Your task to perform on an android device: Open calendar and show me the third week of next month Image 0: 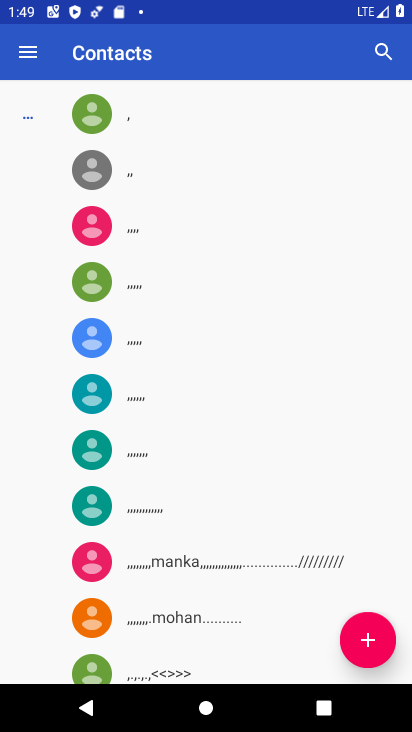
Step 0: press home button
Your task to perform on an android device: Open calendar and show me the third week of next month Image 1: 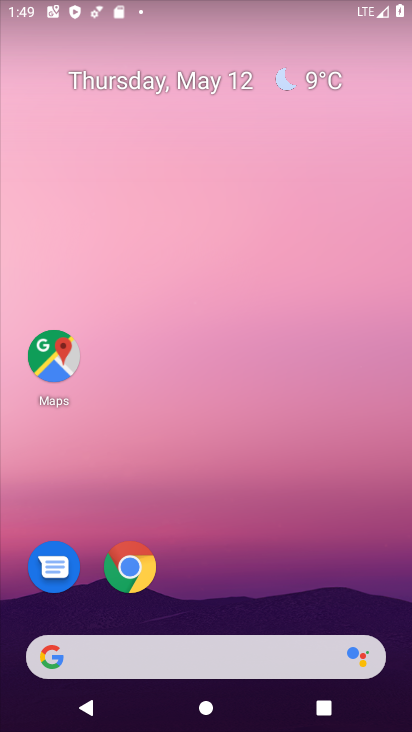
Step 1: drag from (200, 606) to (247, 76)
Your task to perform on an android device: Open calendar and show me the third week of next month Image 2: 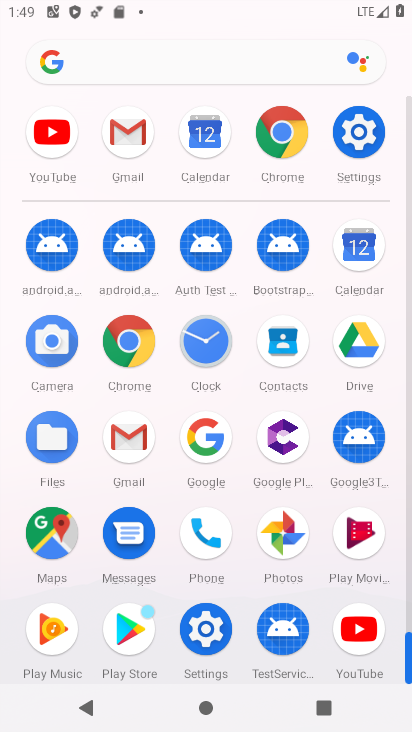
Step 2: click (355, 275)
Your task to perform on an android device: Open calendar and show me the third week of next month Image 3: 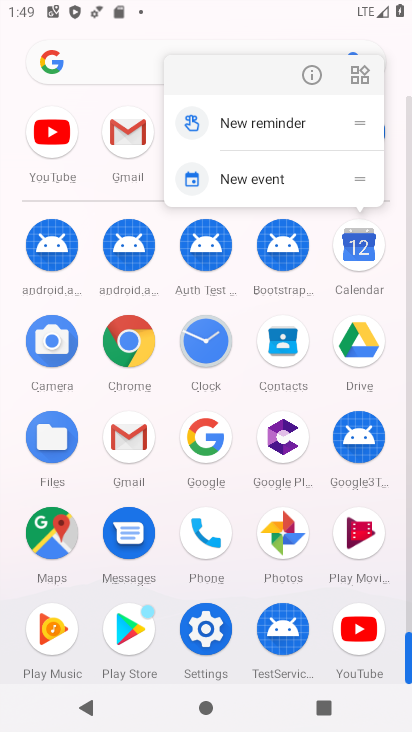
Step 3: click (369, 253)
Your task to perform on an android device: Open calendar and show me the third week of next month Image 4: 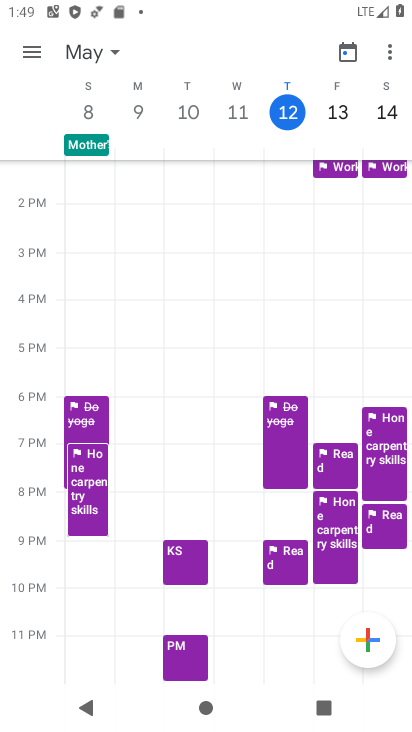
Step 4: click (97, 62)
Your task to perform on an android device: Open calendar and show me the third week of next month Image 5: 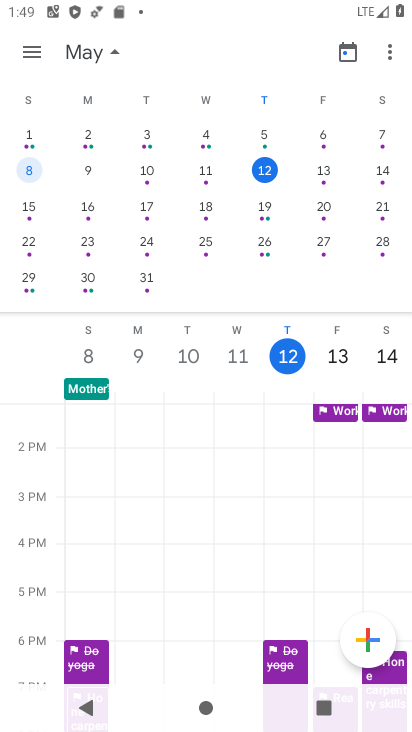
Step 5: drag from (320, 201) to (51, 193)
Your task to perform on an android device: Open calendar and show me the third week of next month Image 6: 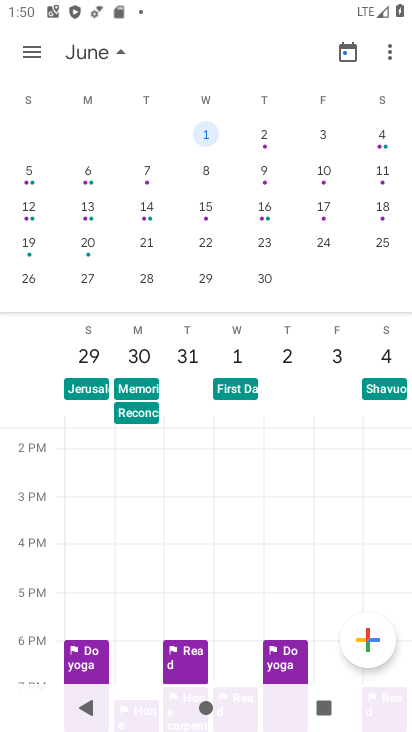
Step 6: click (29, 220)
Your task to perform on an android device: Open calendar and show me the third week of next month Image 7: 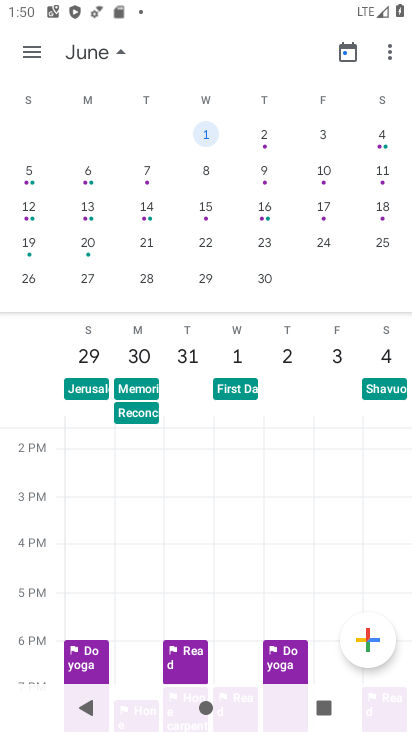
Step 7: click (30, 210)
Your task to perform on an android device: Open calendar and show me the third week of next month Image 8: 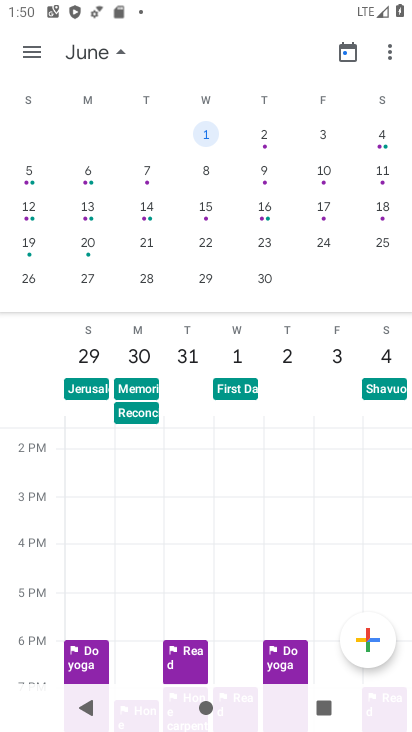
Step 8: click (28, 211)
Your task to perform on an android device: Open calendar and show me the third week of next month Image 9: 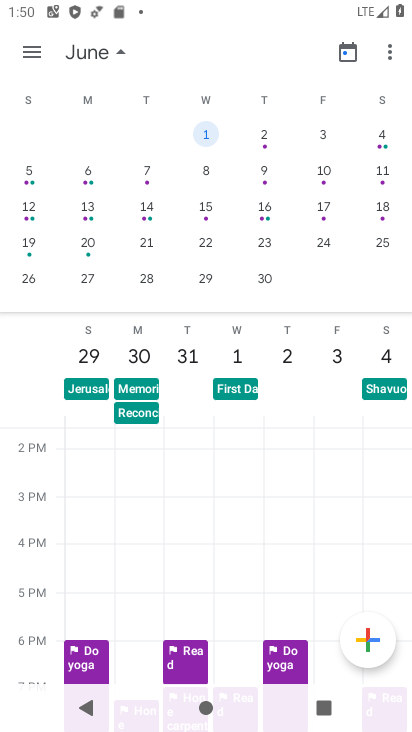
Step 9: click (28, 211)
Your task to perform on an android device: Open calendar and show me the third week of next month Image 10: 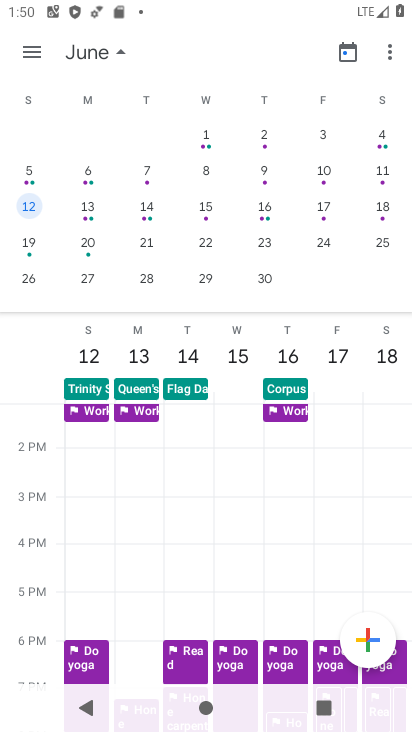
Step 10: drag from (240, 543) to (270, 262)
Your task to perform on an android device: Open calendar and show me the third week of next month Image 11: 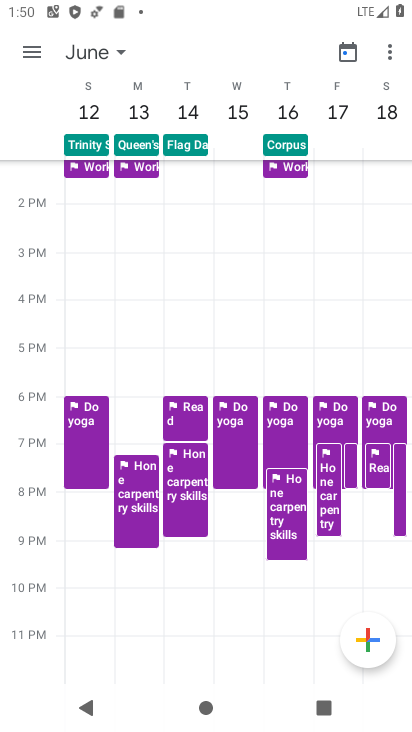
Step 11: drag from (270, 549) to (283, 291)
Your task to perform on an android device: Open calendar and show me the third week of next month Image 12: 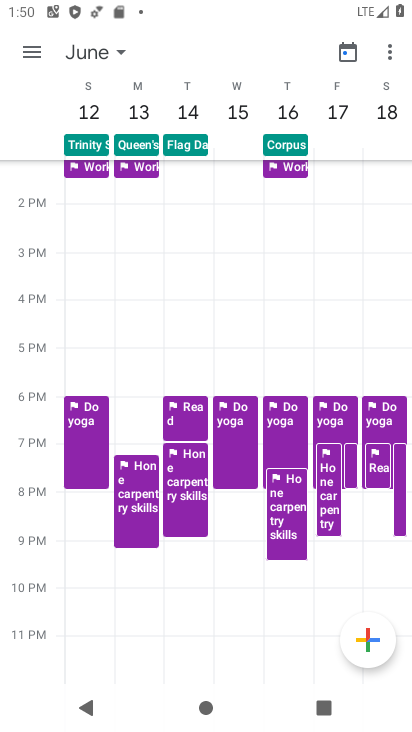
Step 12: click (254, 295)
Your task to perform on an android device: Open calendar and show me the third week of next month Image 13: 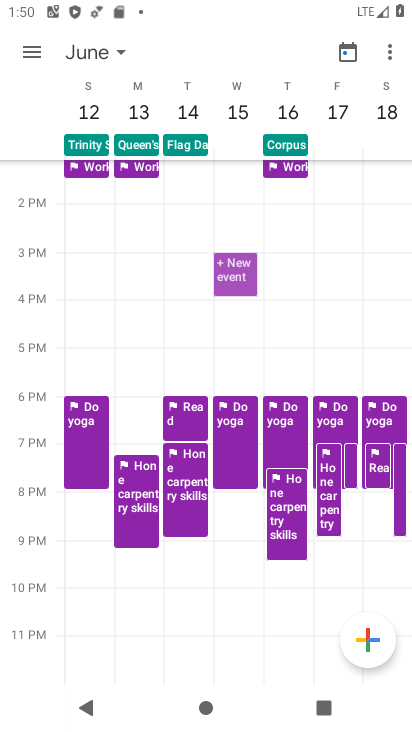
Step 13: task complete